Your task to perform on an android device: Open Android settings Image 0: 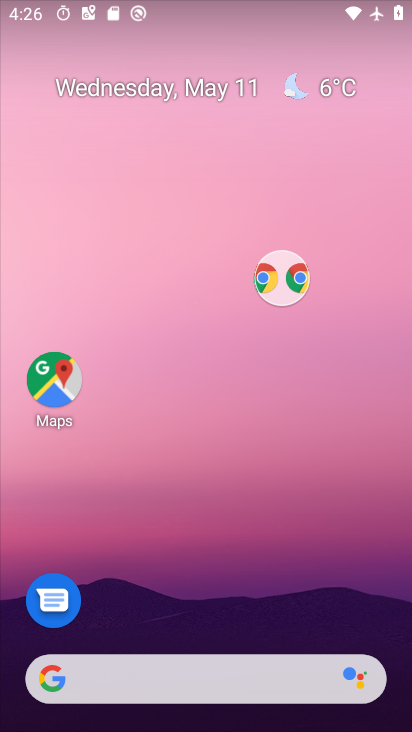
Step 0: drag from (363, 691) to (119, 30)
Your task to perform on an android device: Open Android settings Image 1: 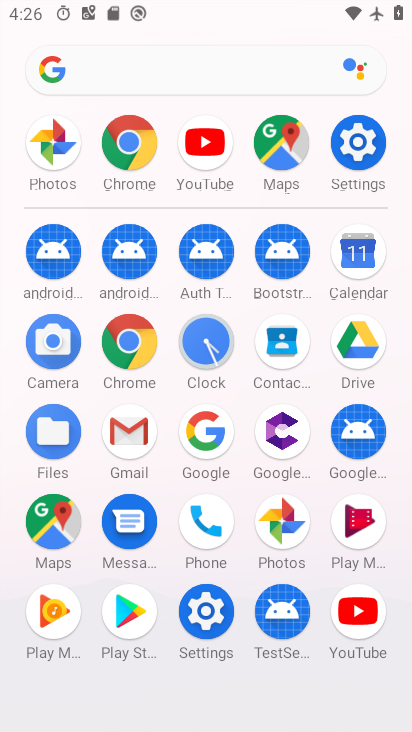
Step 1: click (366, 138)
Your task to perform on an android device: Open Android settings Image 2: 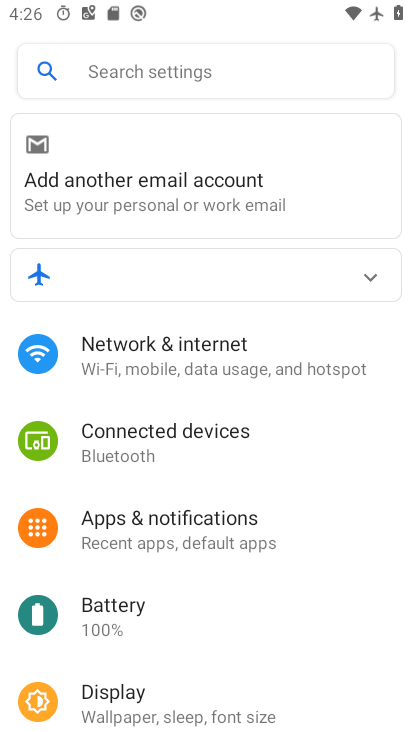
Step 2: drag from (200, 680) to (83, 277)
Your task to perform on an android device: Open Android settings Image 3: 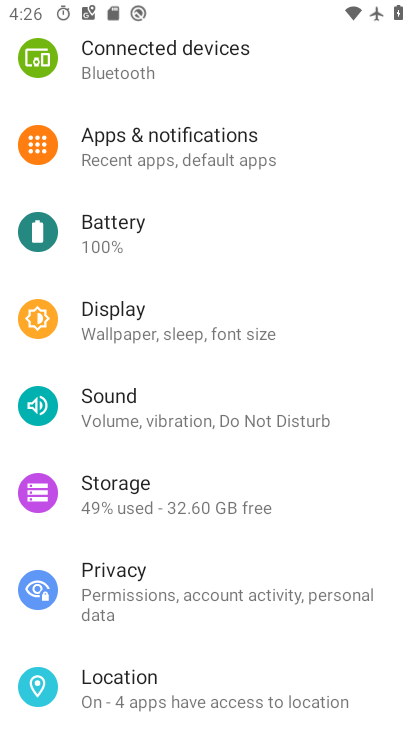
Step 3: drag from (244, 641) to (210, 305)
Your task to perform on an android device: Open Android settings Image 4: 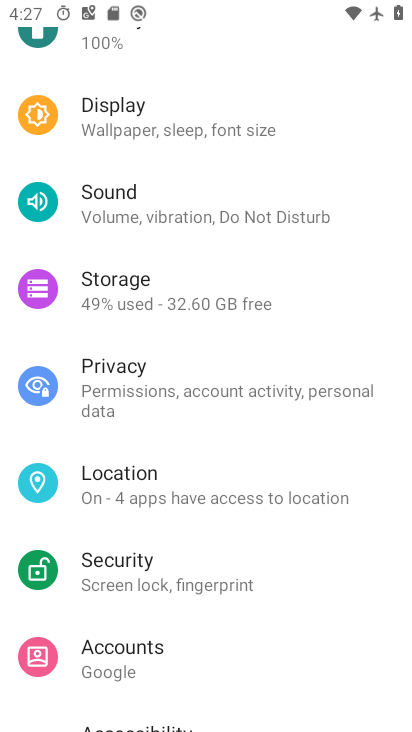
Step 4: drag from (150, 548) to (138, 256)
Your task to perform on an android device: Open Android settings Image 5: 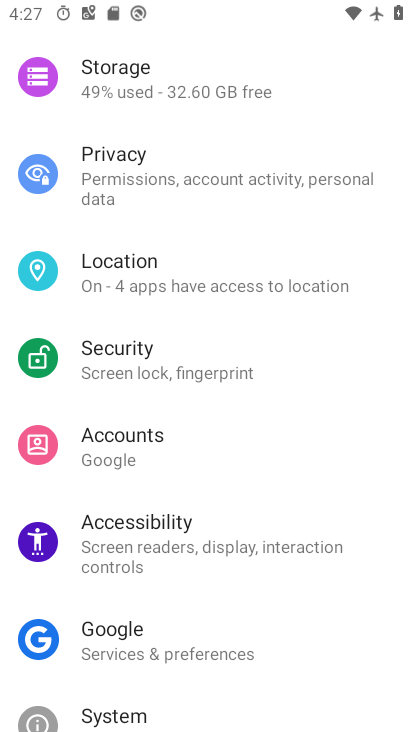
Step 5: drag from (226, 509) to (270, 29)
Your task to perform on an android device: Open Android settings Image 6: 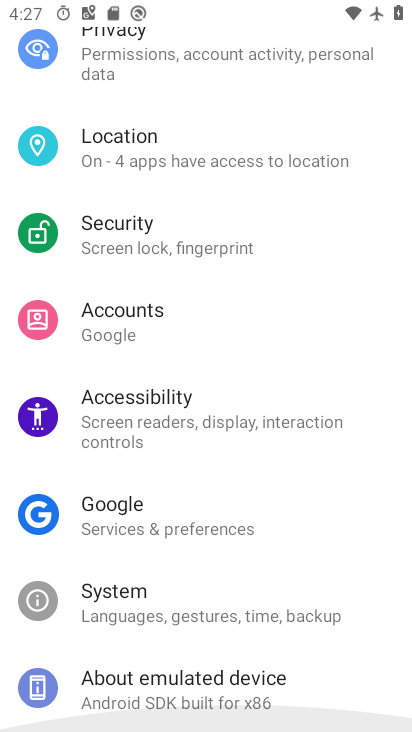
Step 6: drag from (256, 322) to (331, 32)
Your task to perform on an android device: Open Android settings Image 7: 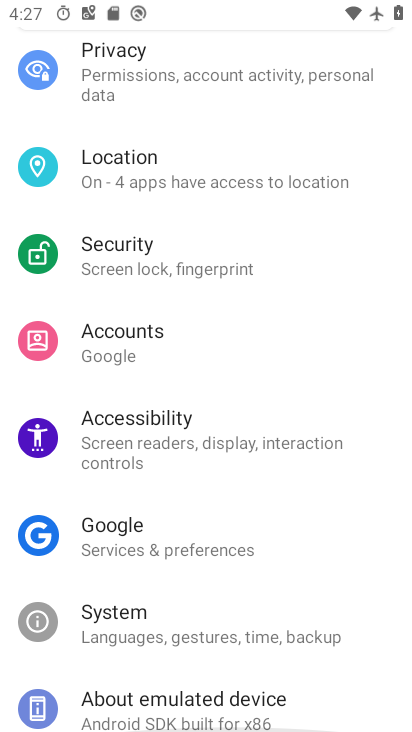
Step 7: drag from (185, 589) to (141, 98)
Your task to perform on an android device: Open Android settings Image 8: 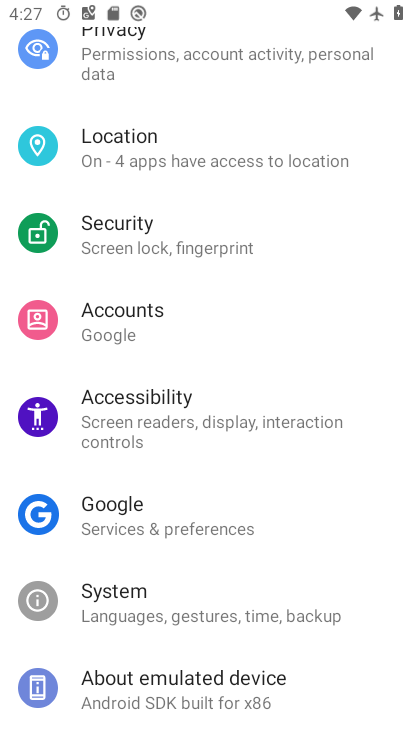
Step 8: drag from (212, 654) to (119, 288)
Your task to perform on an android device: Open Android settings Image 9: 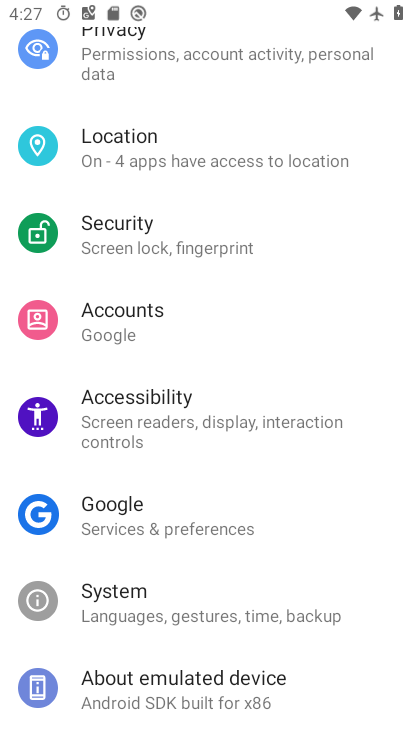
Step 9: click (223, 672)
Your task to perform on an android device: Open Android settings Image 10: 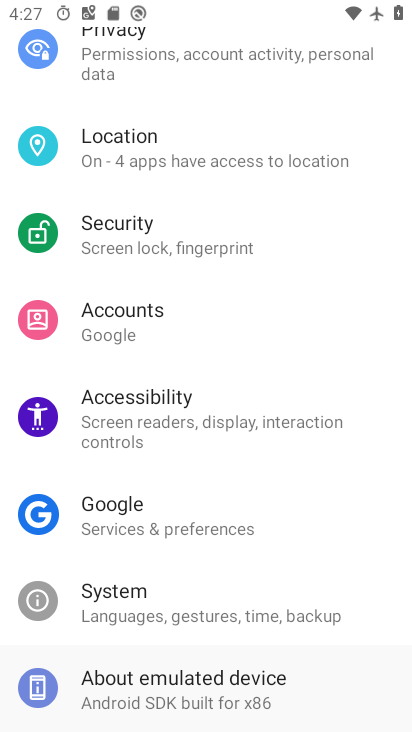
Step 10: click (222, 673)
Your task to perform on an android device: Open Android settings Image 11: 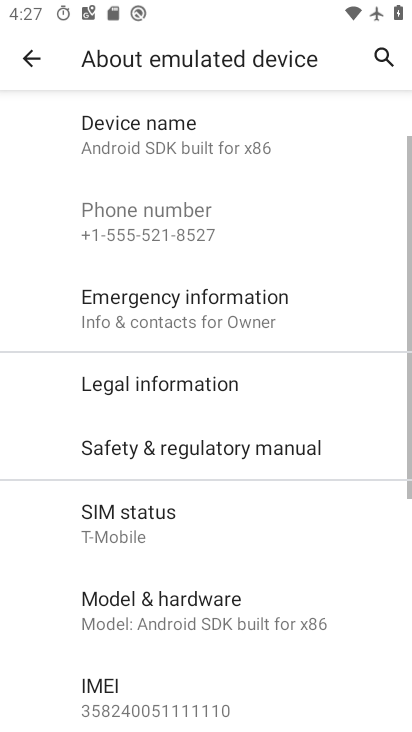
Step 11: task complete